Your task to perform on an android device: Go to CNN.com Image 0: 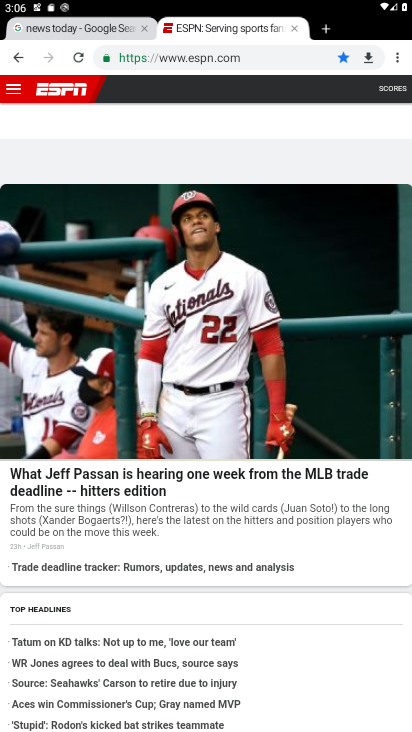
Step 0: click (204, 50)
Your task to perform on an android device: Go to CNN.com Image 1: 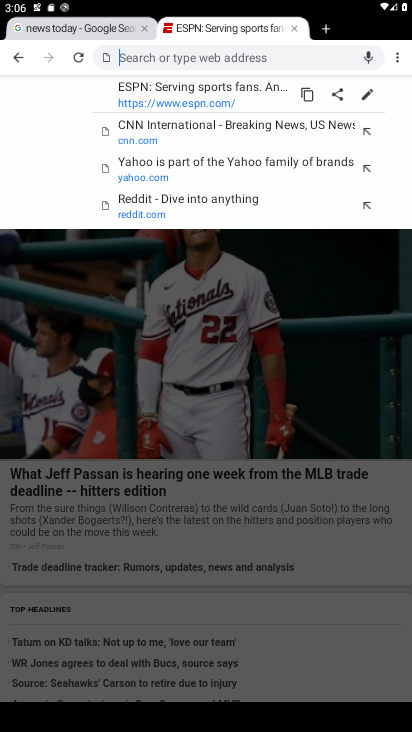
Step 1: type "cnn.com"
Your task to perform on an android device: Go to CNN.com Image 2: 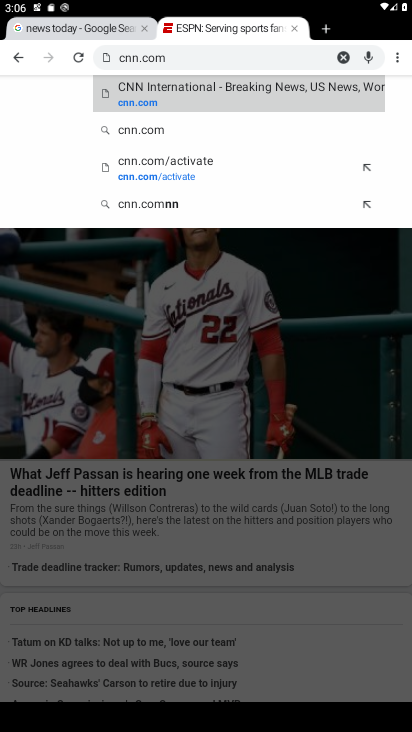
Step 2: click (195, 94)
Your task to perform on an android device: Go to CNN.com Image 3: 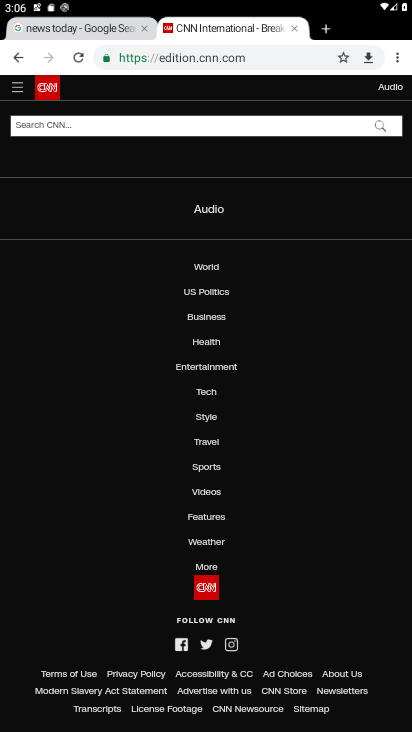
Step 3: task complete